Your task to perform on an android device: Show me popular videos on Youtube Image 0: 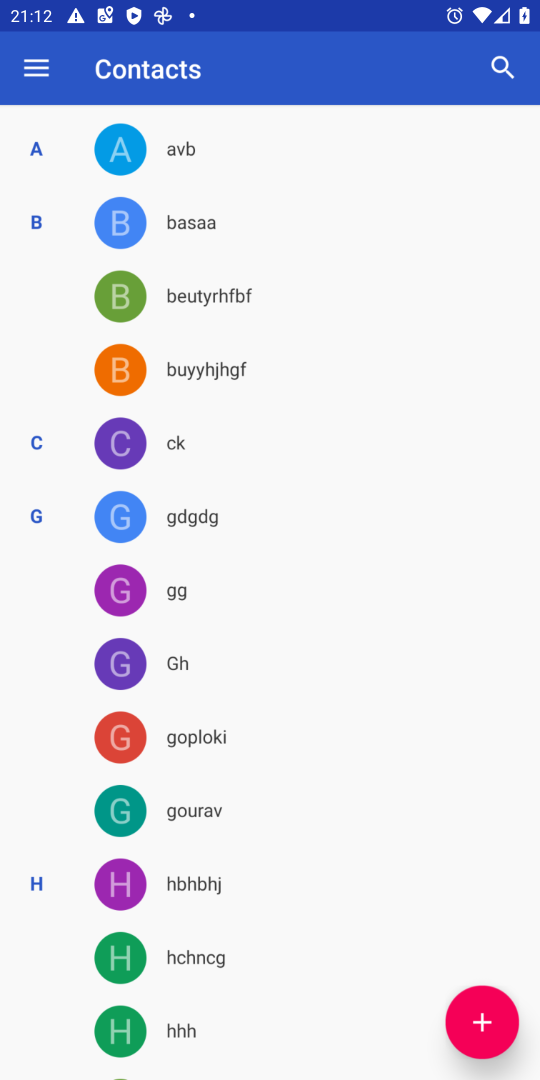
Step 0: press home button
Your task to perform on an android device: Show me popular videos on Youtube Image 1: 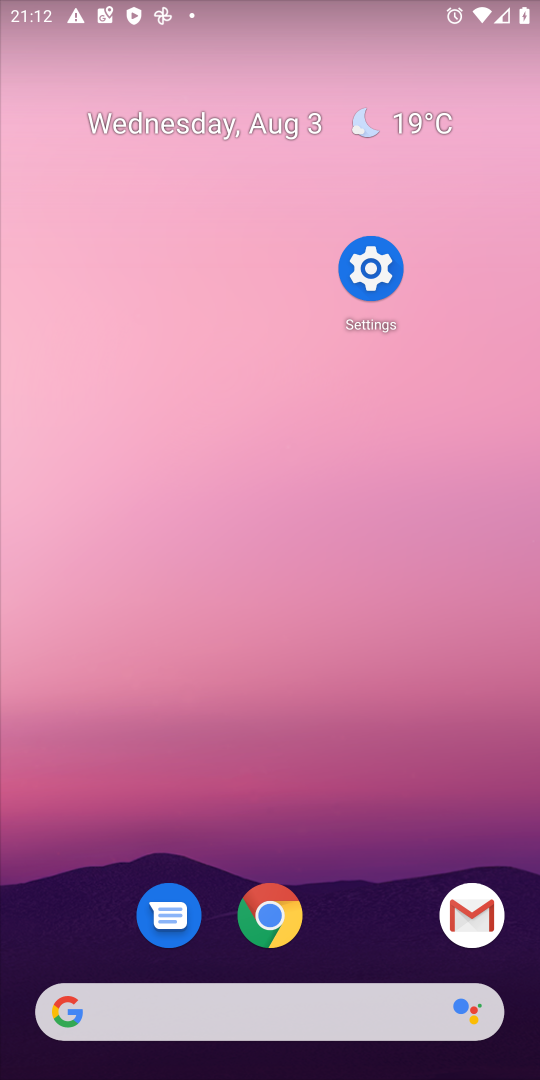
Step 1: drag from (362, 968) to (360, 415)
Your task to perform on an android device: Show me popular videos on Youtube Image 2: 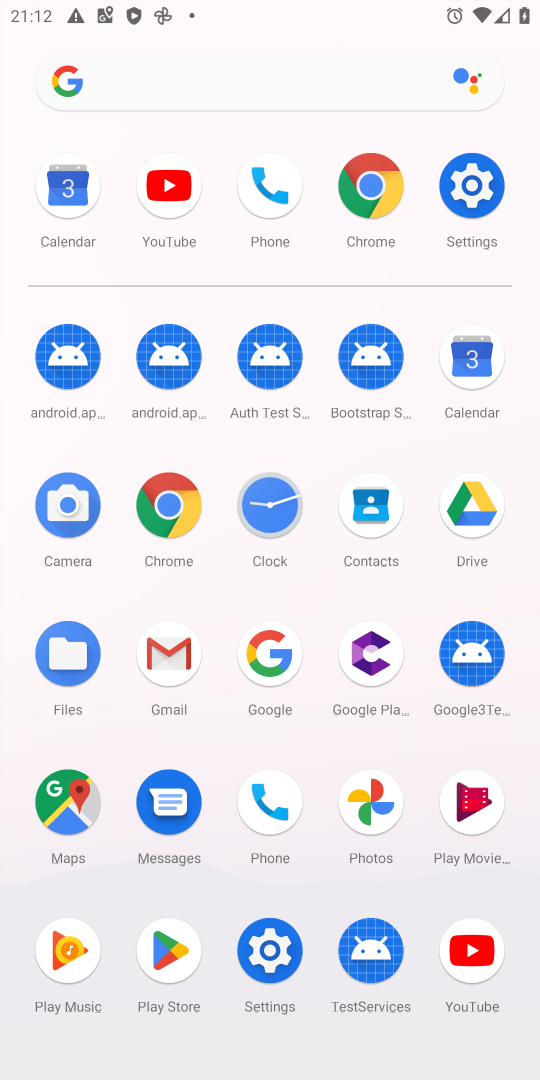
Step 2: click (470, 956)
Your task to perform on an android device: Show me popular videos on Youtube Image 3: 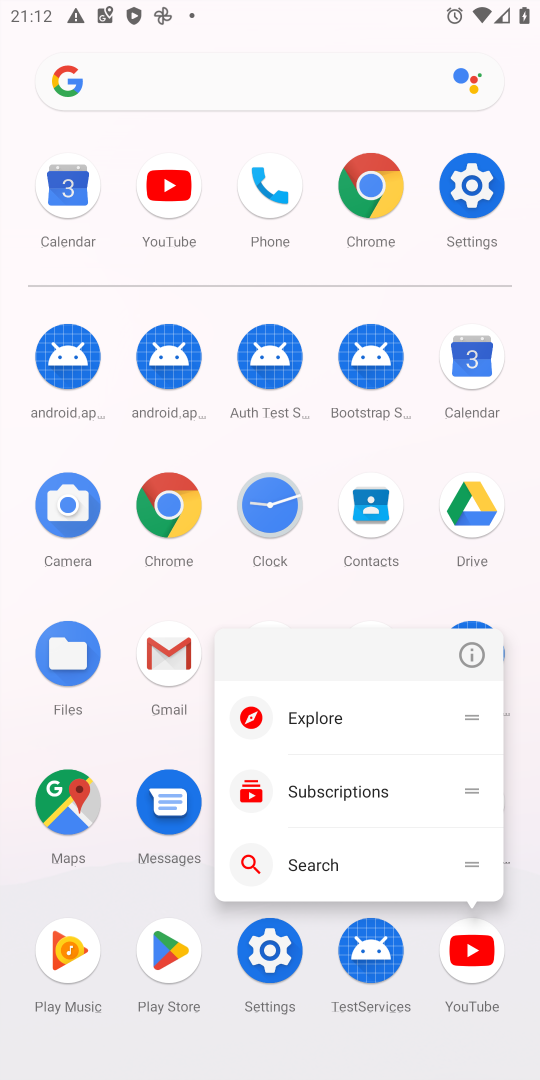
Step 3: click (485, 958)
Your task to perform on an android device: Show me popular videos on Youtube Image 4: 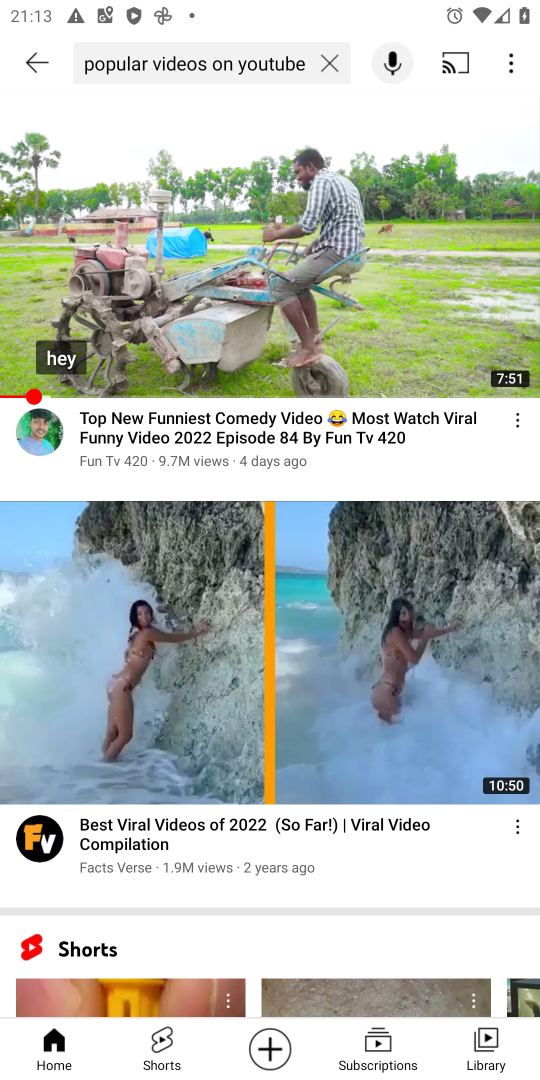
Step 4: task complete